Your task to perform on an android device: Open Yahoo.com Image 0: 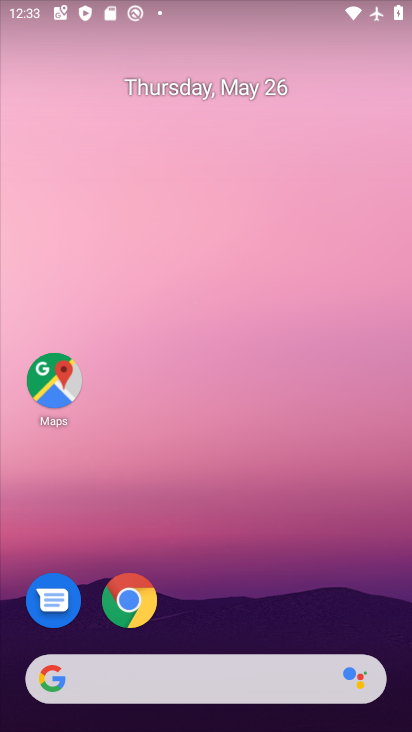
Step 0: click (132, 603)
Your task to perform on an android device: Open Yahoo.com Image 1: 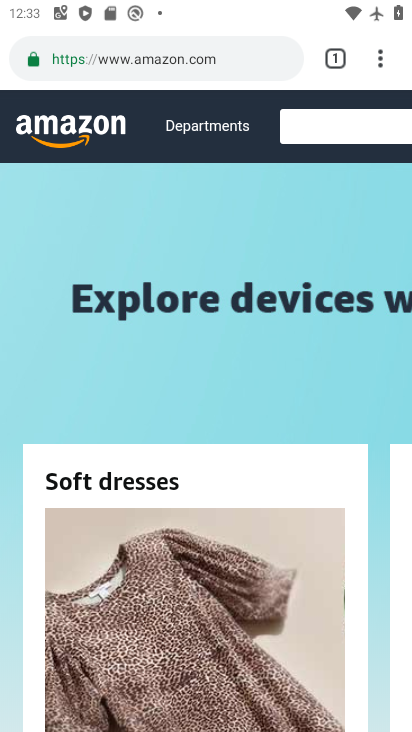
Step 1: click (266, 43)
Your task to perform on an android device: Open Yahoo.com Image 2: 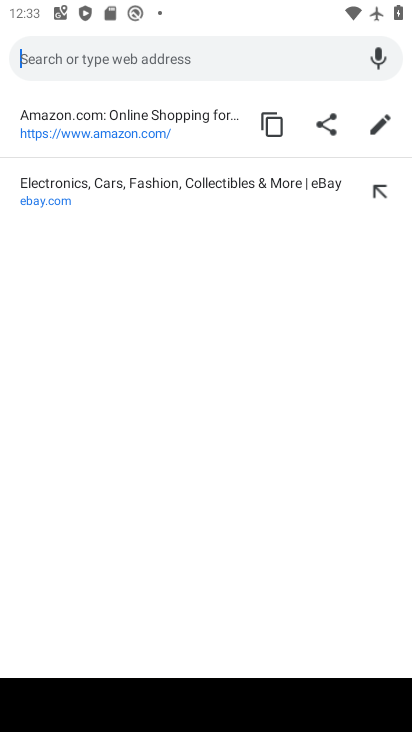
Step 2: type "yahoo.com"
Your task to perform on an android device: Open Yahoo.com Image 3: 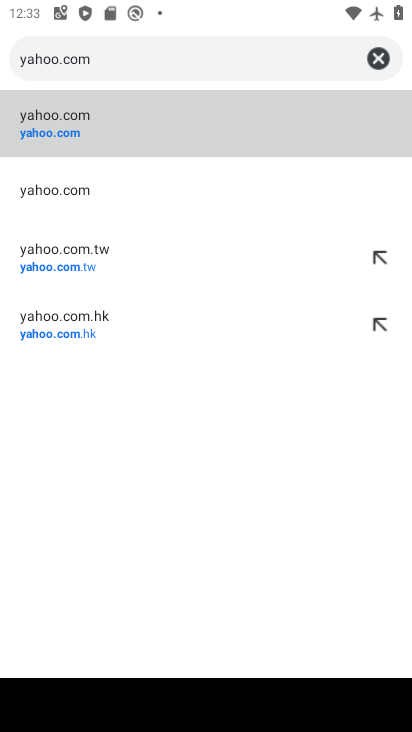
Step 3: click (33, 135)
Your task to perform on an android device: Open Yahoo.com Image 4: 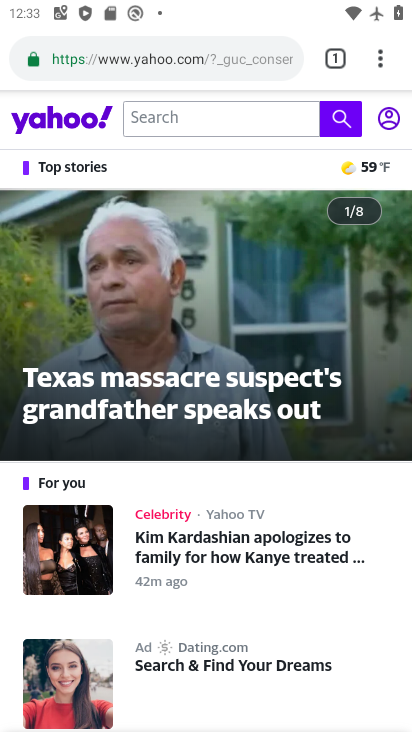
Step 4: task complete